Your task to perform on an android device: What is the news today? Image 0: 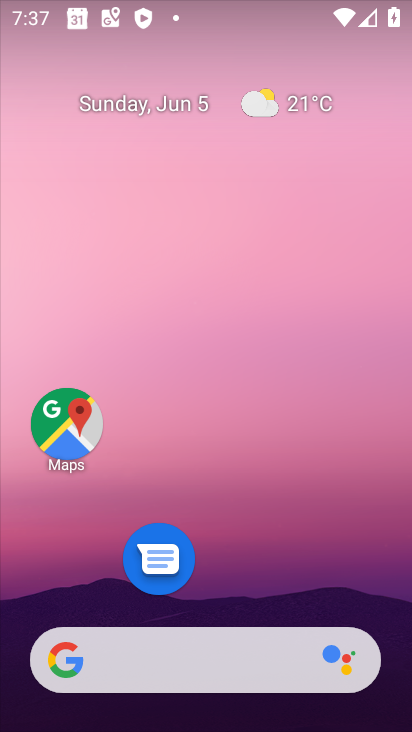
Step 0: click (230, 660)
Your task to perform on an android device: What is the news today? Image 1: 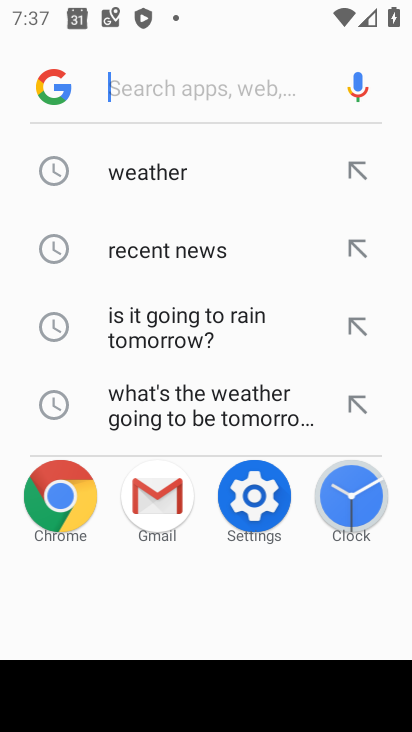
Step 1: click (154, 235)
Your task to perform on an android device: What is the news today? Image 2: 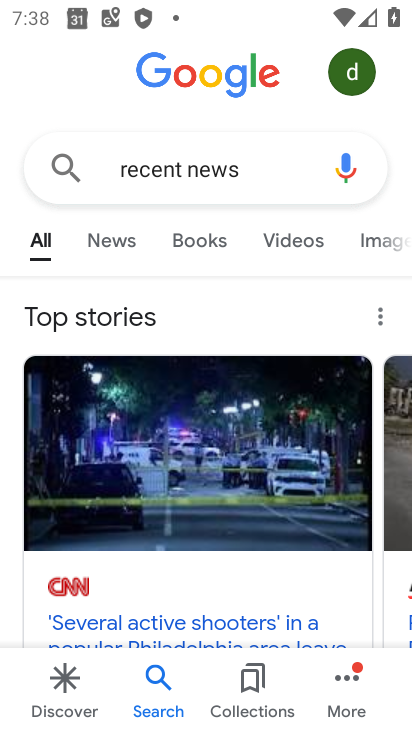
Step 2: press back button
Your task to perform on an android device: What is the news today? Image 3: 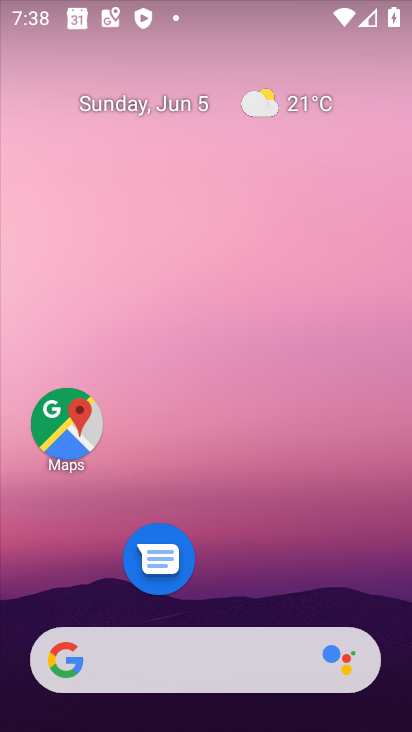
Step 3: click (276, 677)
Your task to perform on an android device: What is the news today? Image 4: 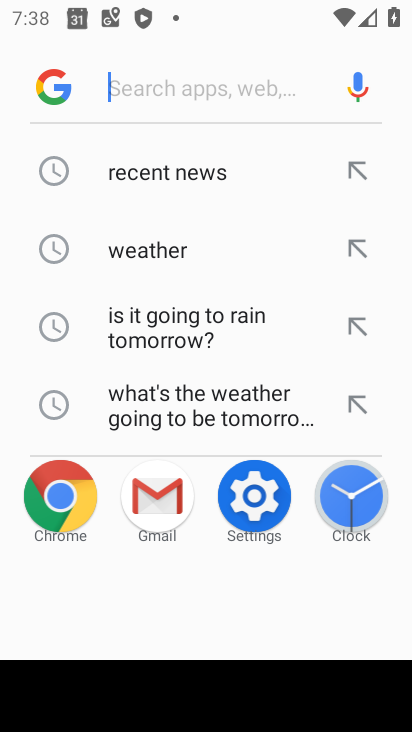
Step 4: click (147, 156)
Your task to perform on an android device: What is the news today? Image 5: 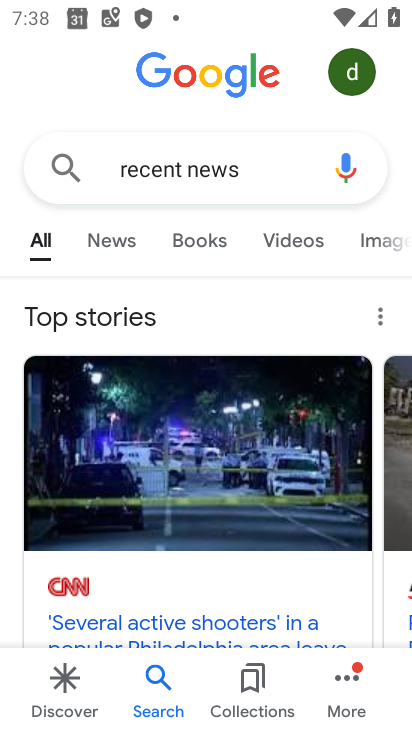
Step 5: click (122, 245)
Your task to perform on an android device: What is the news today? Image 6: 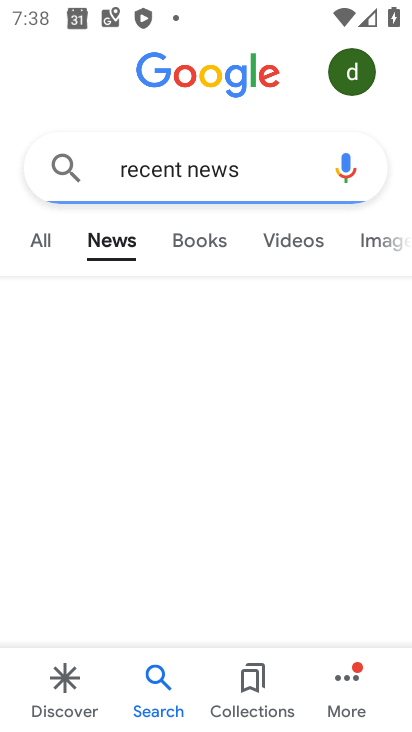
Step 6: task complete